Your task to perform on an android device: turn off location history Image 0: 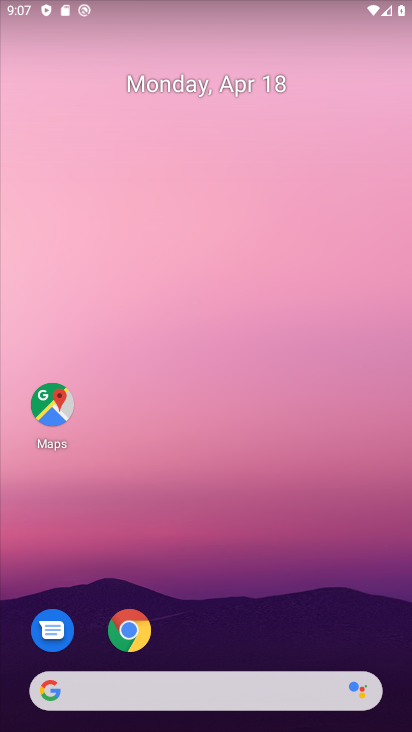
Step 0: drag from (308, 600) to (295, 82)
Your task to perform on an android device: turn off location history Image 1: 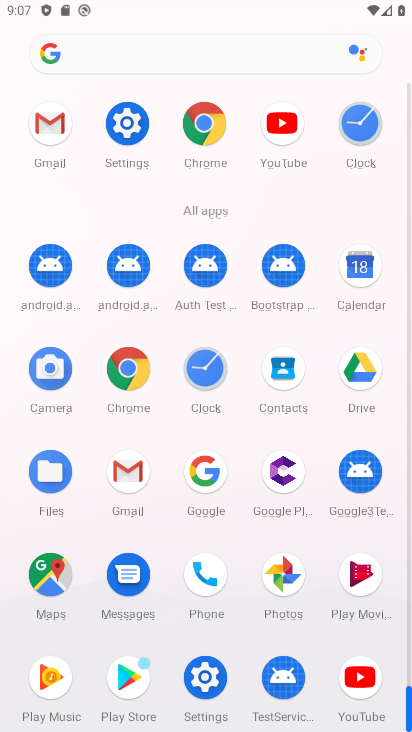
Step 1: click (136, 126)
Your task to perform on an android device: turn off location history Image 2: 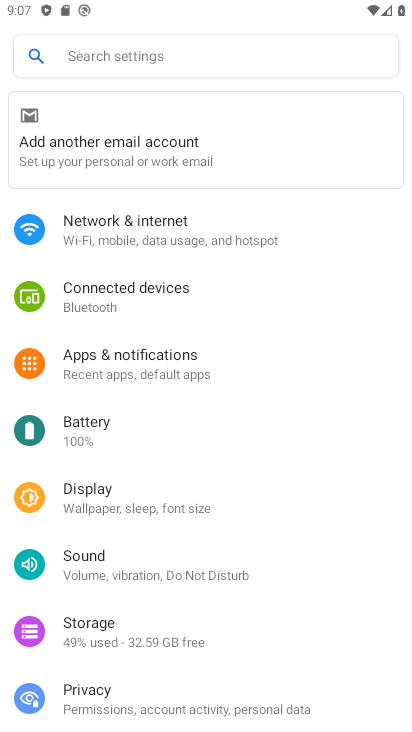
Step 2: drag from (246, 582) to (278, 409)
Your task to perform on an android device: turn off location history Image 3: 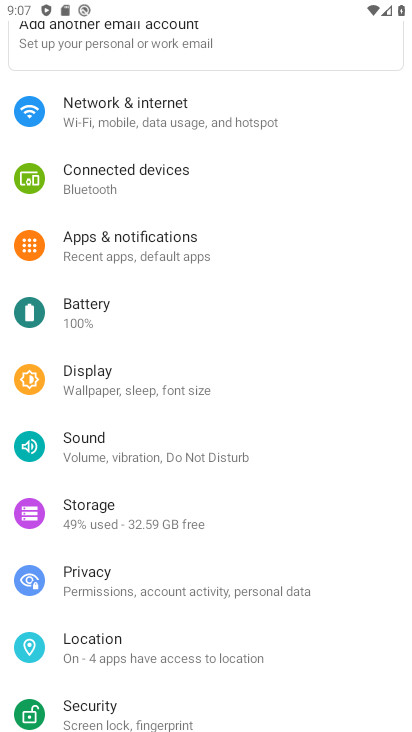
Step 3: click (206, 648)
Your task to perform on an android device: turn off location history Image 4: 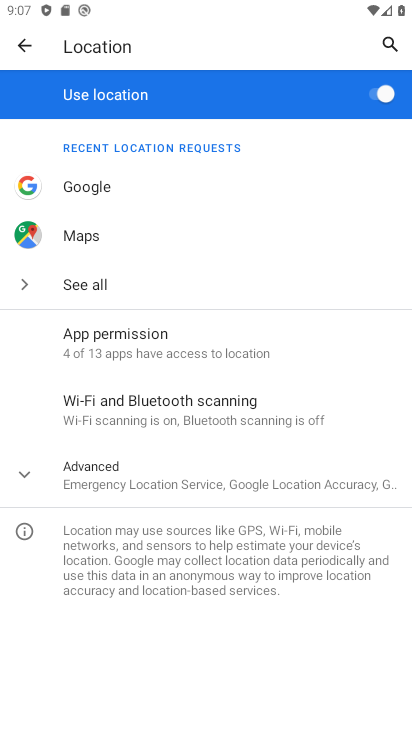
Step 4: click (370, 94)
Your task to perform on an android device: turn off location history Image 5: 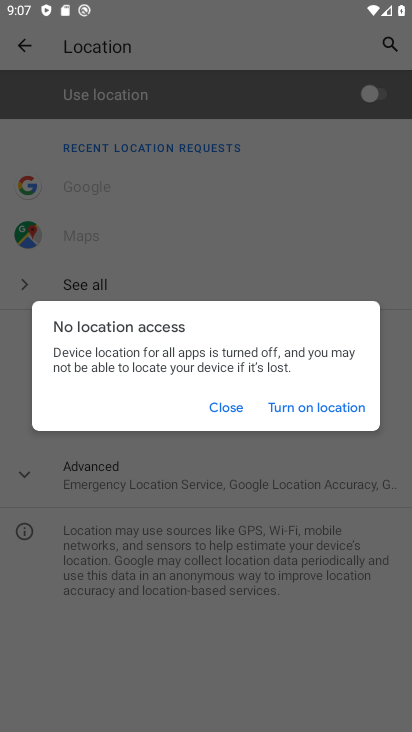
Step 5: click (222, 403)
Your task to perform on an android device: turn off location history Image 6: 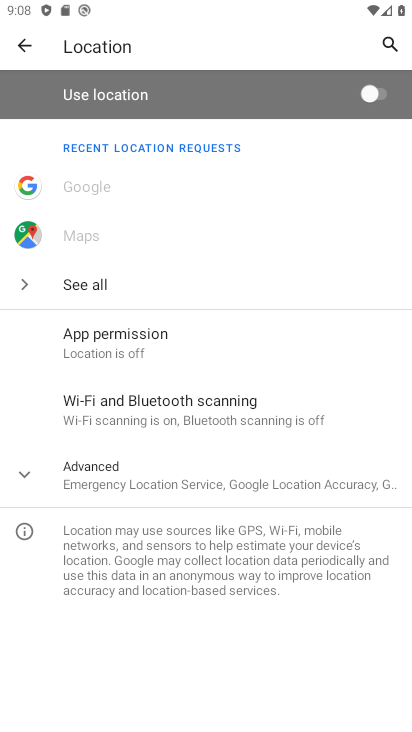
Step 6: task complete